Your task to perform on an android device: change text size in settings app Image 0: 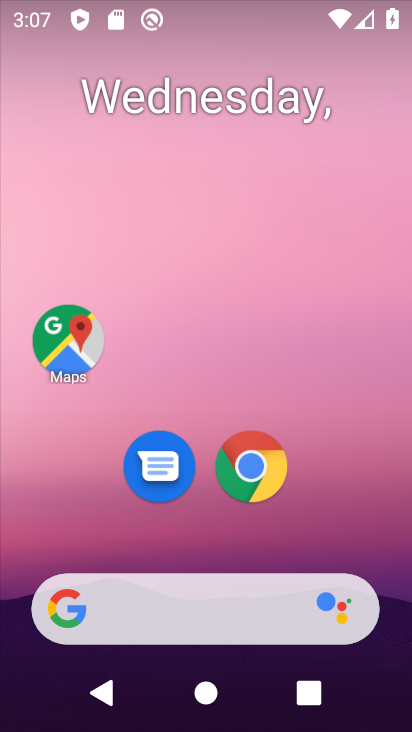
Step 0: drag from (392, 594) to (316, 126)
Your task to perform on an android device: change text size in settings app Image 1: 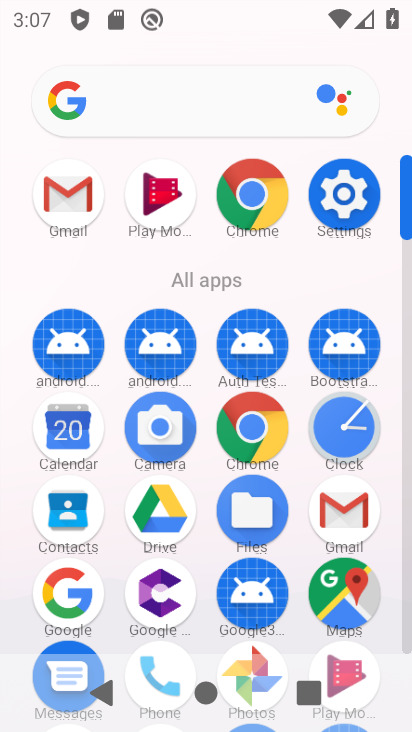
Step 1: click (405, 643)
Your task to perform on an android device: change text size in settings app Image 2: 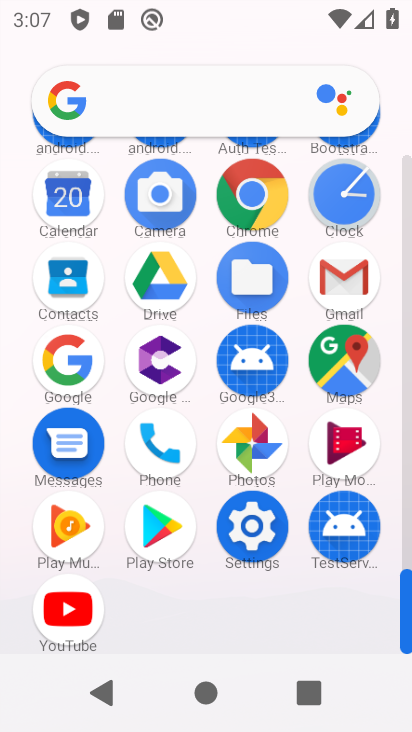
Step 2: click (251, 527)
Your task to perform on an android device: change text size in settings app Image 3: 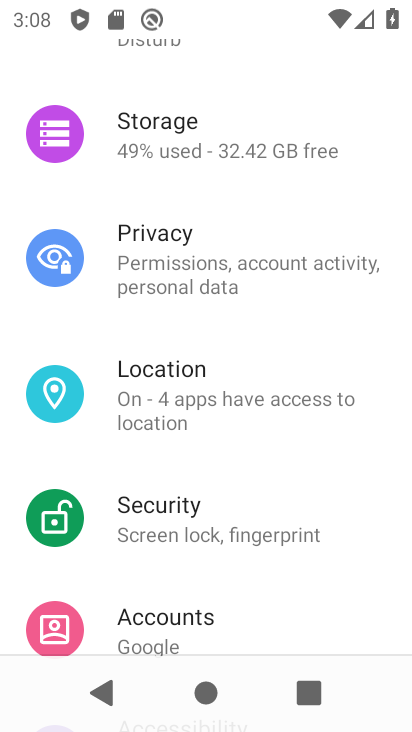
Step 3: drag from (331, 407) to (307, 541)
Your task to perform on an android device: change text size in settings app Image 4: 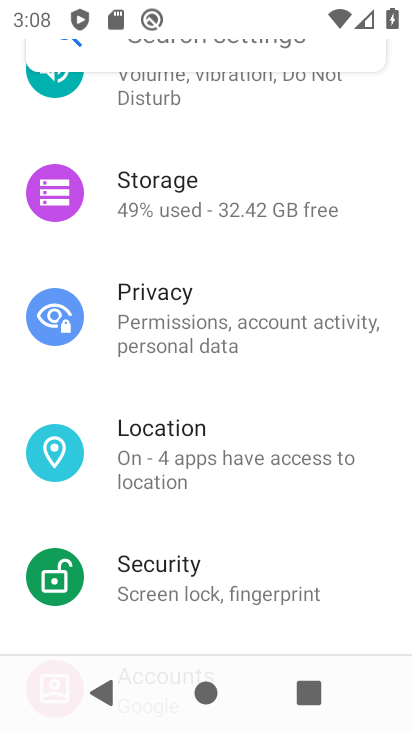
Step 4: drag from (347, 309) to (318, 543)
Your task to perform on an android device: change text size in settings app Image 5: 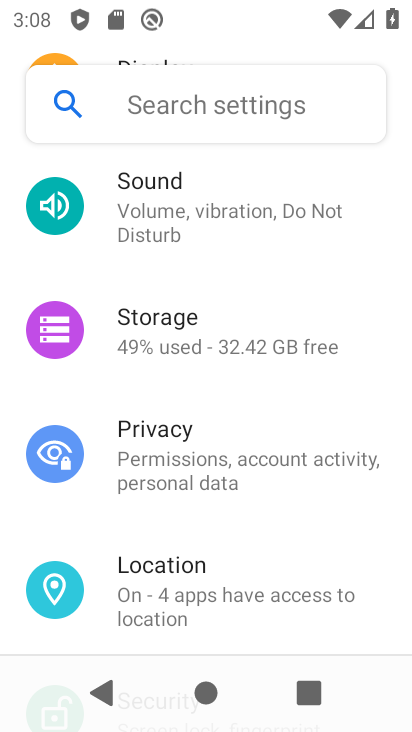
Step 5: drag from (342, 267) to (331, 493)
Your task to perform on an android device: change text size in settings app Image 6: 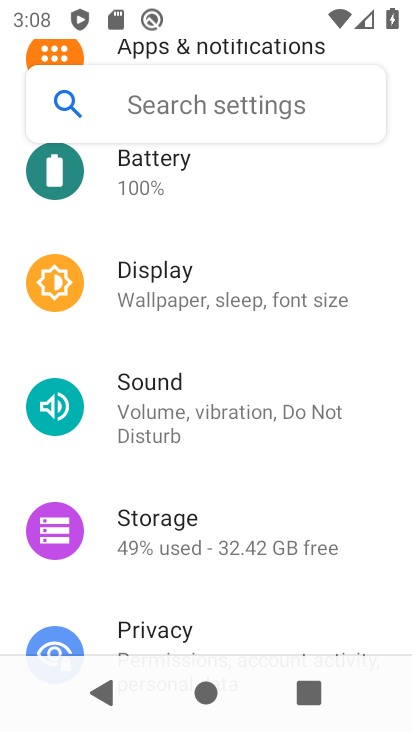
Step 6: click (148, 278)
Your task to perform on an android device: change text size in settings app Image 7: 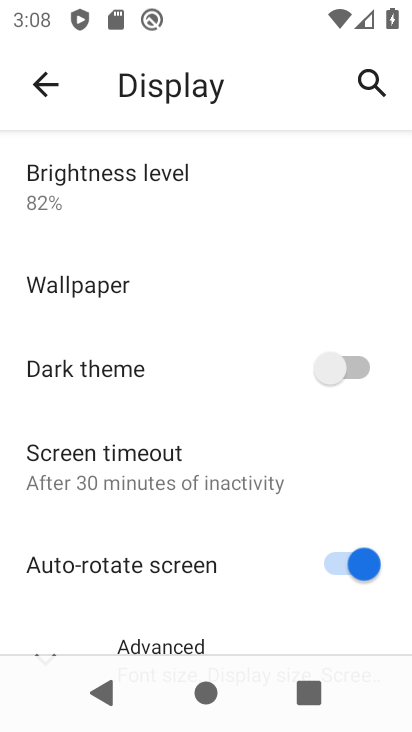
Step 7: drag from (264, 562) to (260, 312)
Your task to perform on an android device: change text size in settings app Image 8: 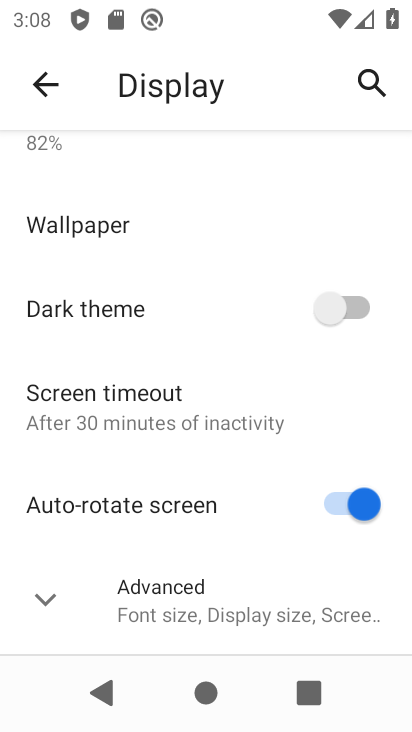
Step 8: click (40, 601)
Your task to perform on an android device: change text size in settings app Image 9: 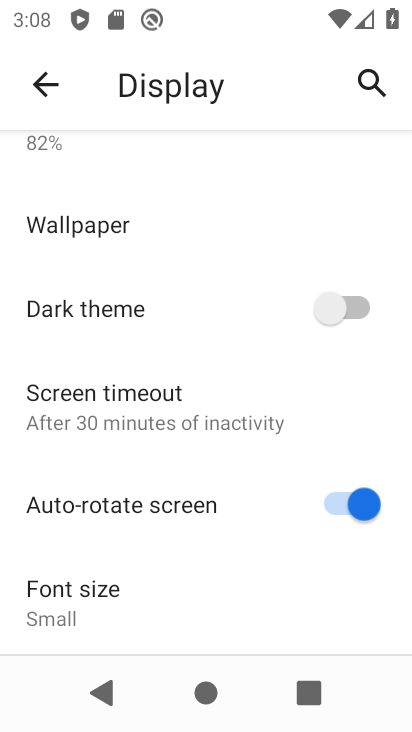
Step 9: drag from (269, 611) to (260, 323)
Your task to perform on an android device: change text size in settings app Image 10: 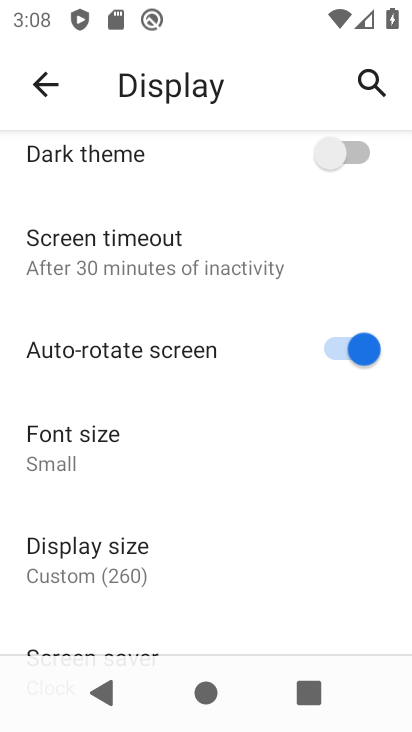
Step 10: click (52, 439)
Your task to perform on an android device: change text size in settings app Image 11: 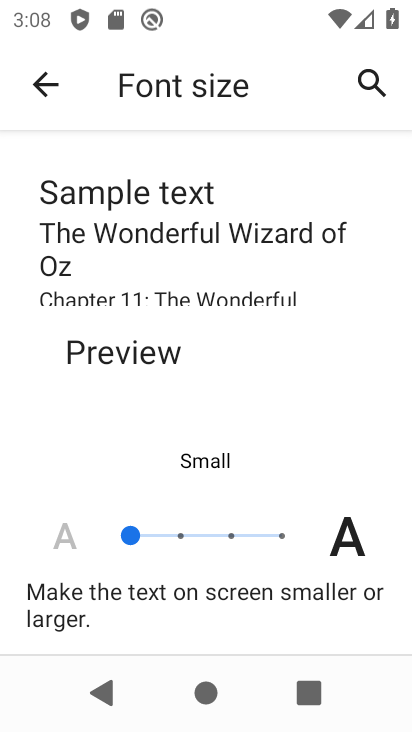
Step 11: click (178, 537)
Your task to perform on an android device: change text size in settings app Image 12: 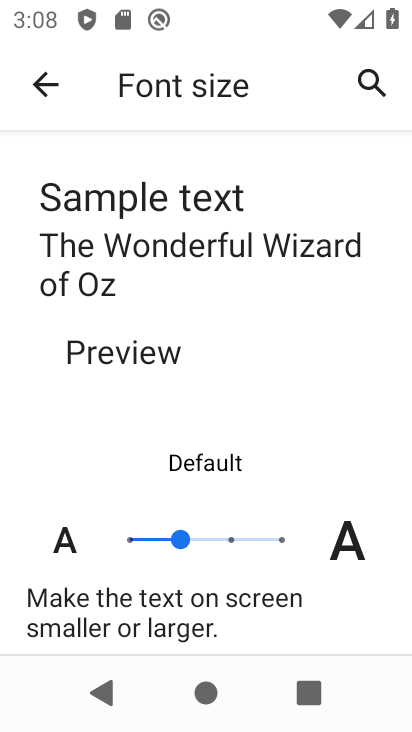
Step 12: task complete